Your task to perform on an android device: Open maps Image 0: 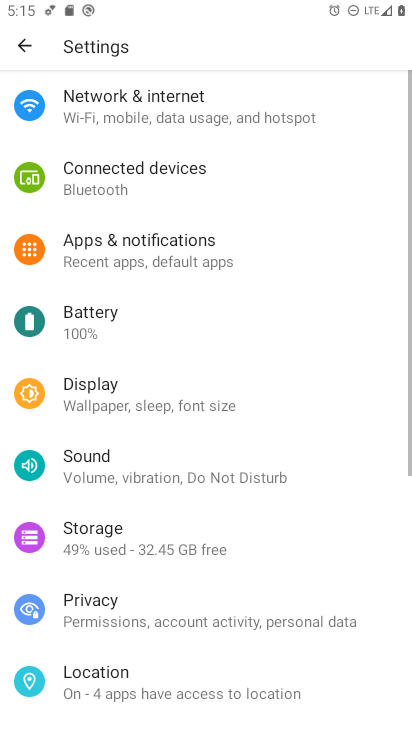
Step 0: press home button
Your task to perform on an android device: Open maps Image 1: 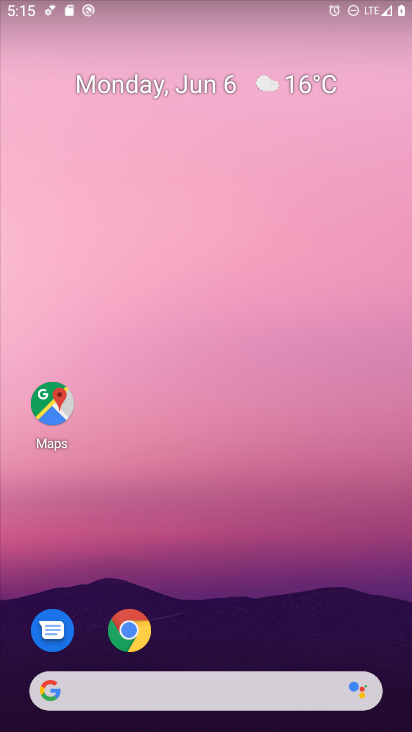
Step 1: click (33, 391)
Your task to perform on an android device: Open maps Image 2: 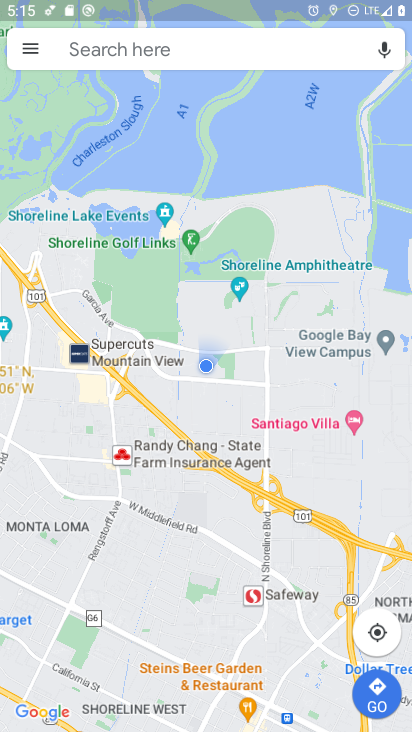
Step 2: task complete